Your task to perform on an android device: Open display settings Image 0: 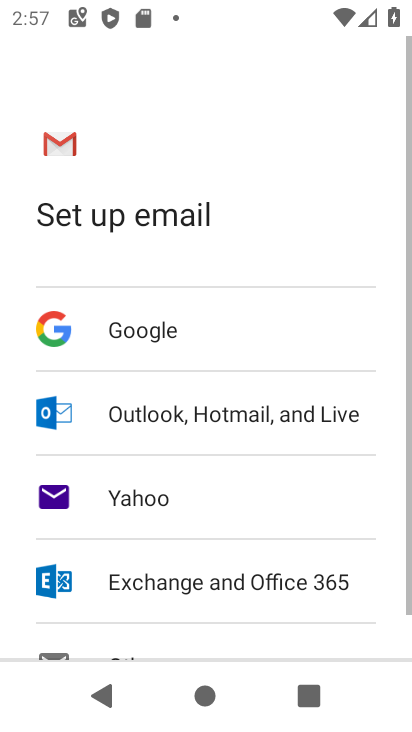
Step 0: press home button
Your task to perform on an android device: Open display settings Image 1: 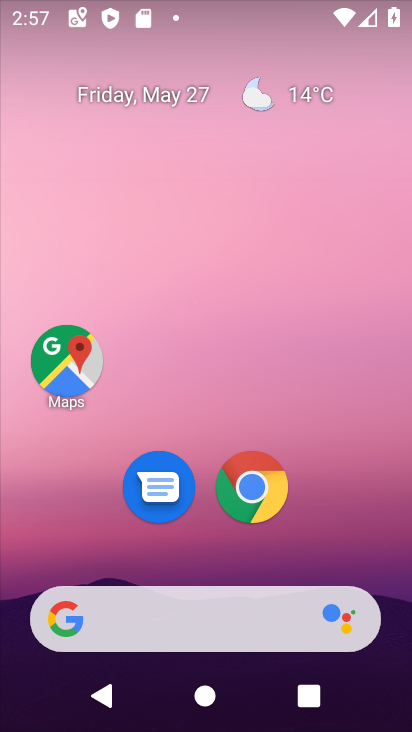
Step 1: drag from (371, 510) to (341, 39)
Your task to perform on an android device: Open display settings Image 2: 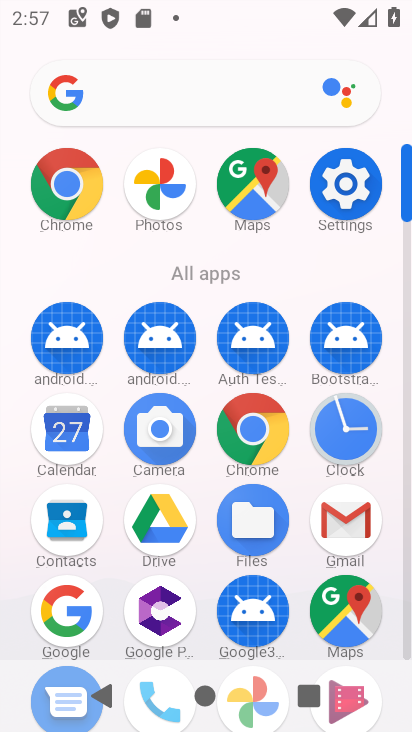
Step 2: click (361, 221)
Your task to perform on an android device: Open display settings Image 3: 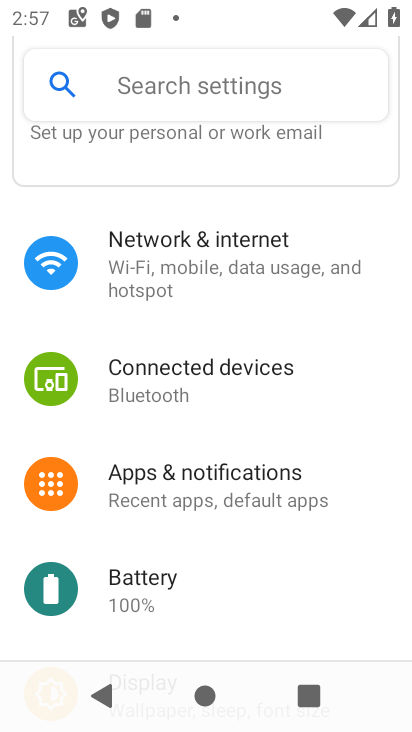
Step 3: drag from (216, 621) to (191, 164)
Your task to perform on an android device: Open display settings Image 4: 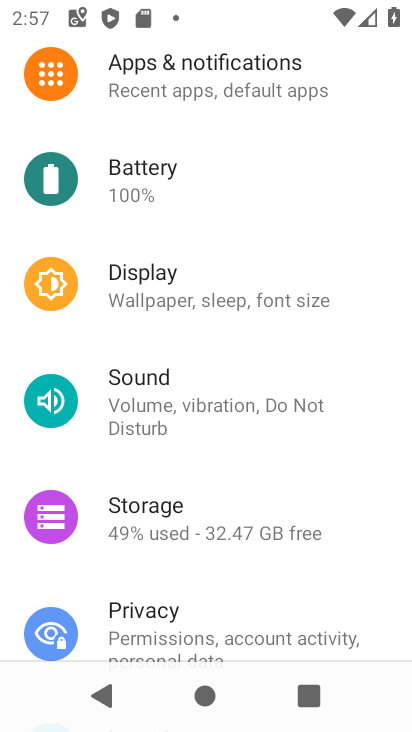
Step 4: click (180, 320)
Your task to perform on an android device: Open display settings Image 5: 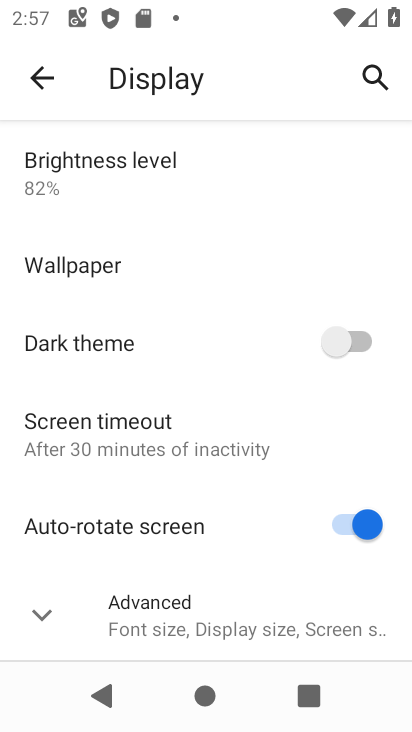
Step 5: task complete